Your task to perform on an android device: Find coffee shops on Maps Image 0: 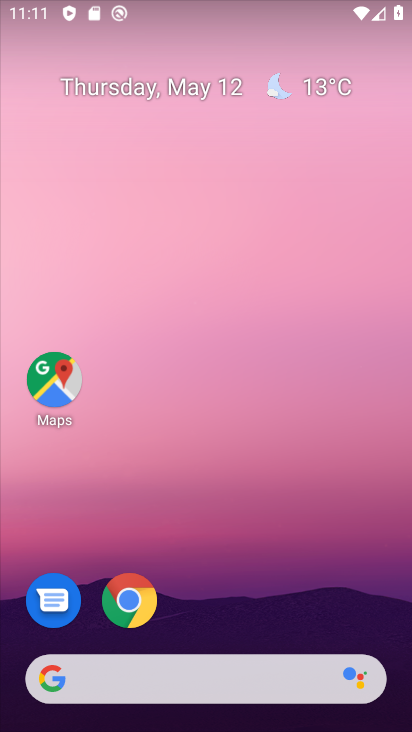
Step 0: click (54, 374)
Your task to perform on an android device: Find coffee shops on Maps Image 1: 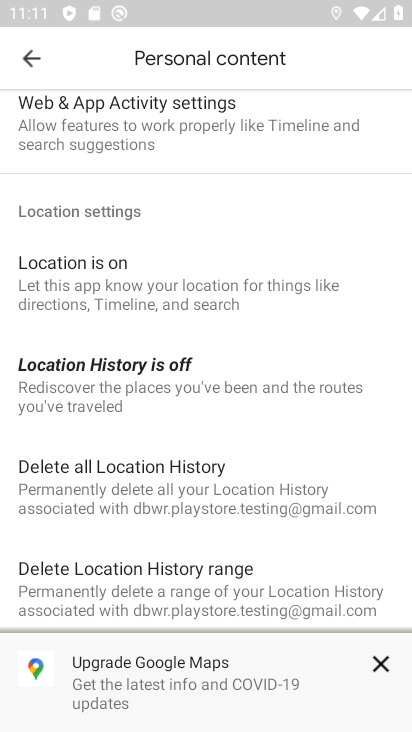
Step 1: press back button
Your task to perform on an android device: Find coffee shops on Maps Image 2: 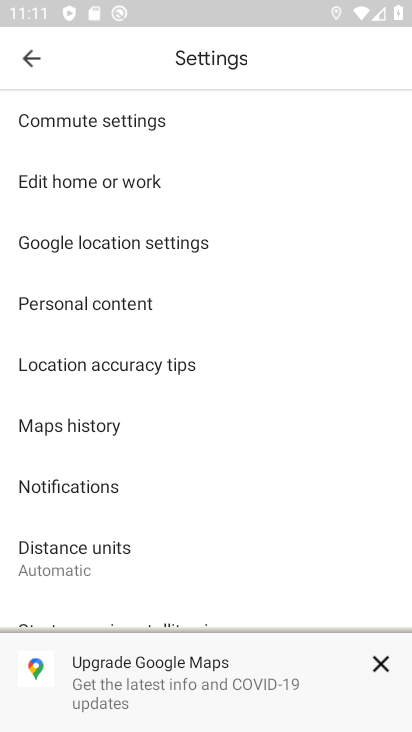
Step 2: press back button
Your task to perform on an android device: Find coffee shops on Maps Image 3: 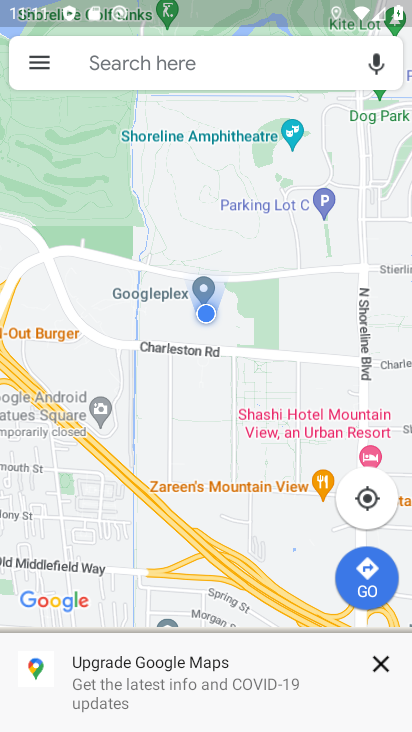
Step 3: click (168, 59)
Your task to perform on an android device: Find coffee shops on Maps Image 4: 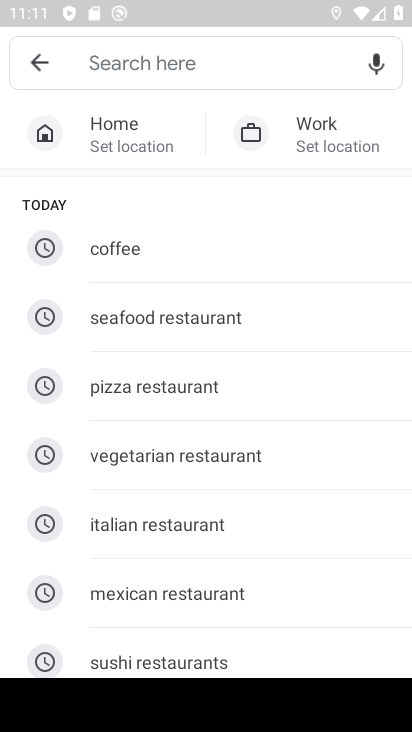
Step 4: click (126, 248)
Your task to perform on an android device: Find coffee shops on Maps Image 5: 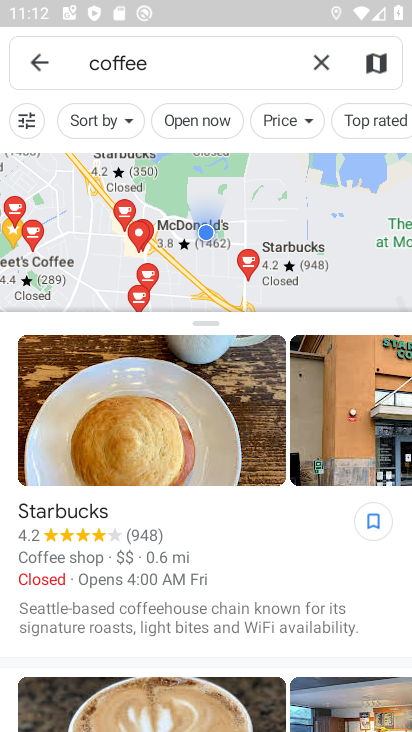
Step 5: task complete